Your task to perform on an android device: make emails show in primary in the gmail app Image 0: 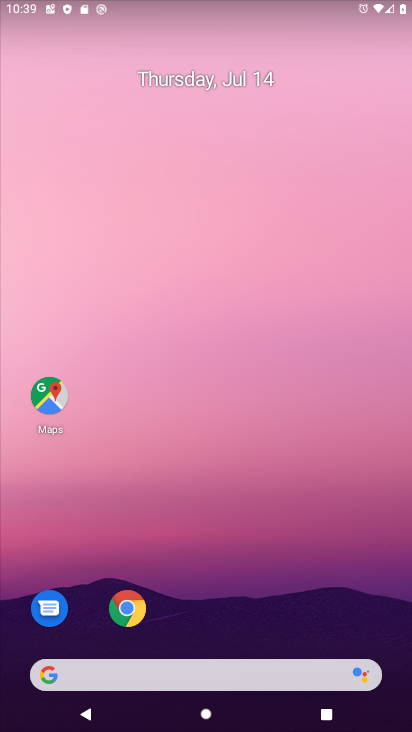
Step 0: drag from (240, 724) to (256, 129)
Your task to perform on an android device: make emails show in primary in the gmail app Image 1: 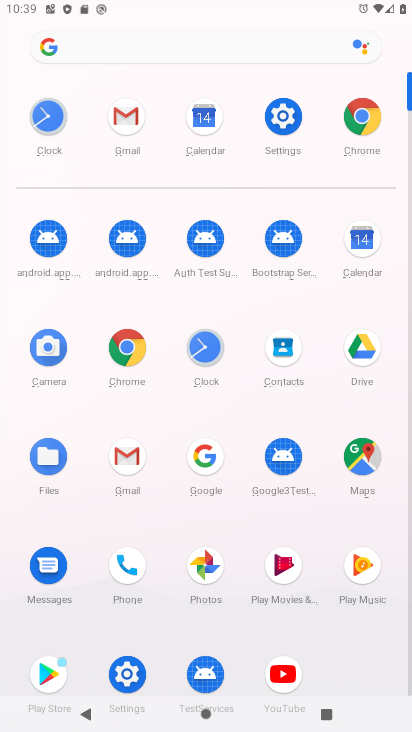
Step 1: click (129, 449)
Your task to perform on an android device: make emails show in primary in the gmail app Image 2: 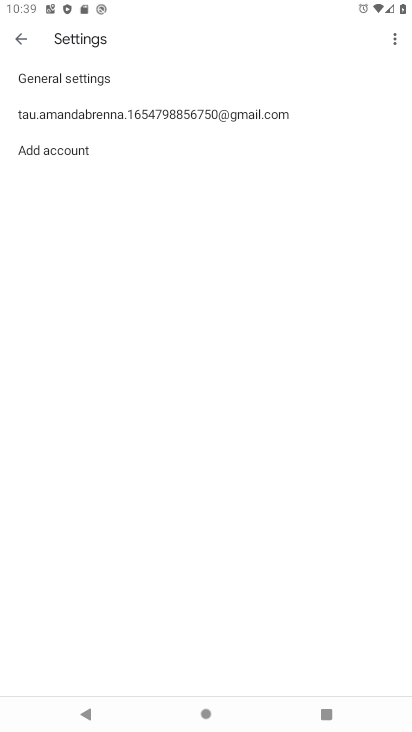
Step 2: click (165, 117)
Your task to perform on an android device: make emails show in primary in the gmail app Image 3: 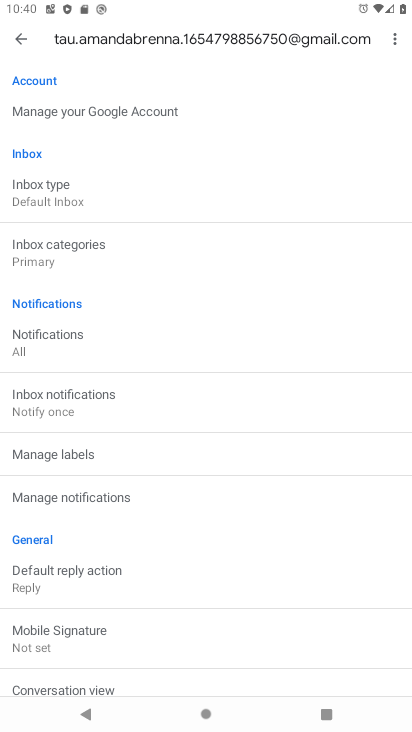
Step 3: task complete